Your task to perform on an android device: open sync settings in chrome Image 0: 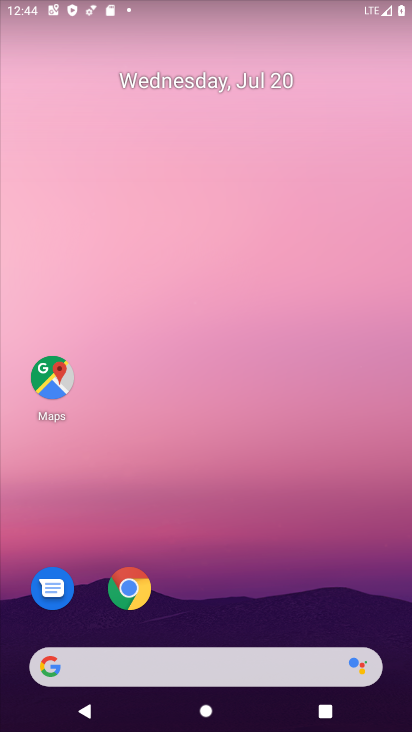
Step 0: click (130, 579)
Your task to perform on an android device: open sync settings in chrome Image 1: 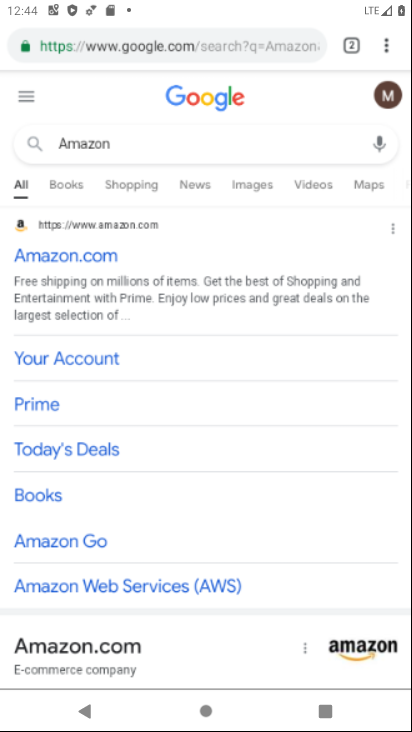
Step 1: click (383, 47)
Your task to perform on an android device: open sync settings in chrome Image 2: 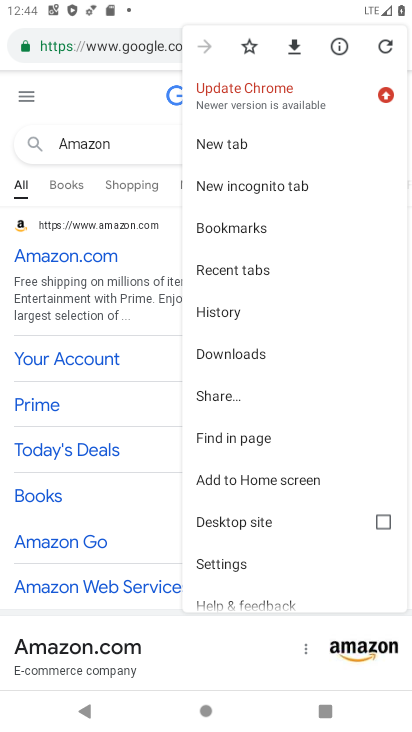
Step 2: click (242, 566)
Your task to perform on an android device: open sync settings in chrome Image 3: 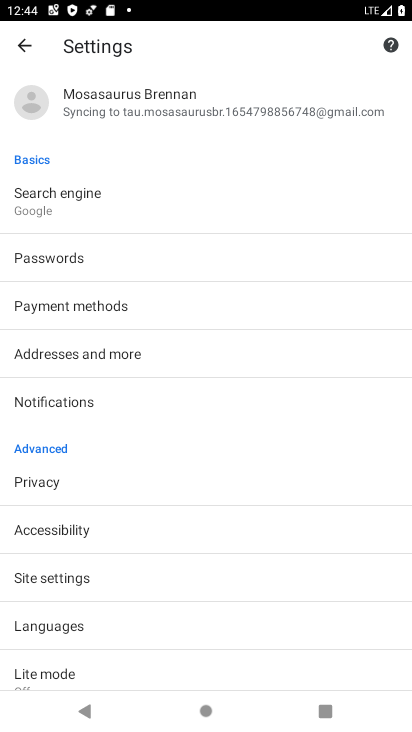
Step 3: click (68, 586)
Your task to perform on an android device: open sync settings in chrome Image 4: 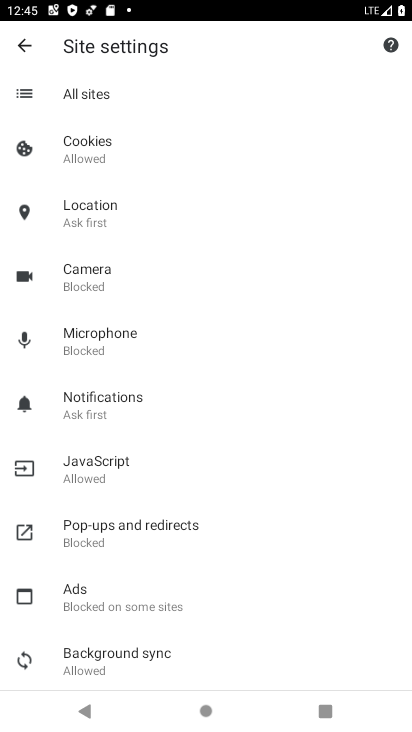
Step 4: click (124, 658)
Your task to perform on an android device: open sync settings in chrome Image 5: 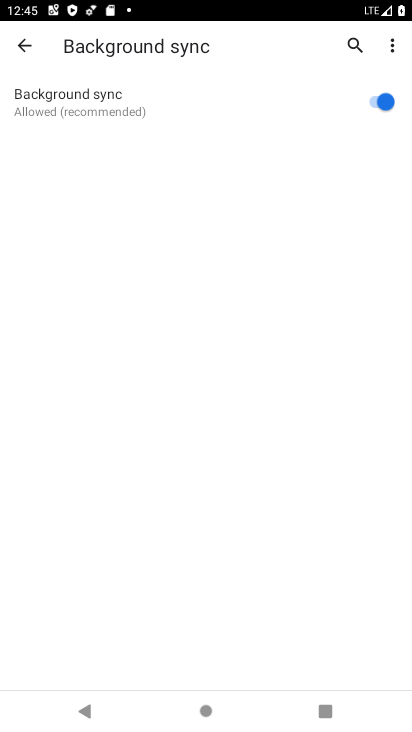
Step 5: task complete